Your task to perform on an android device: open app "File Manager" Image 0: 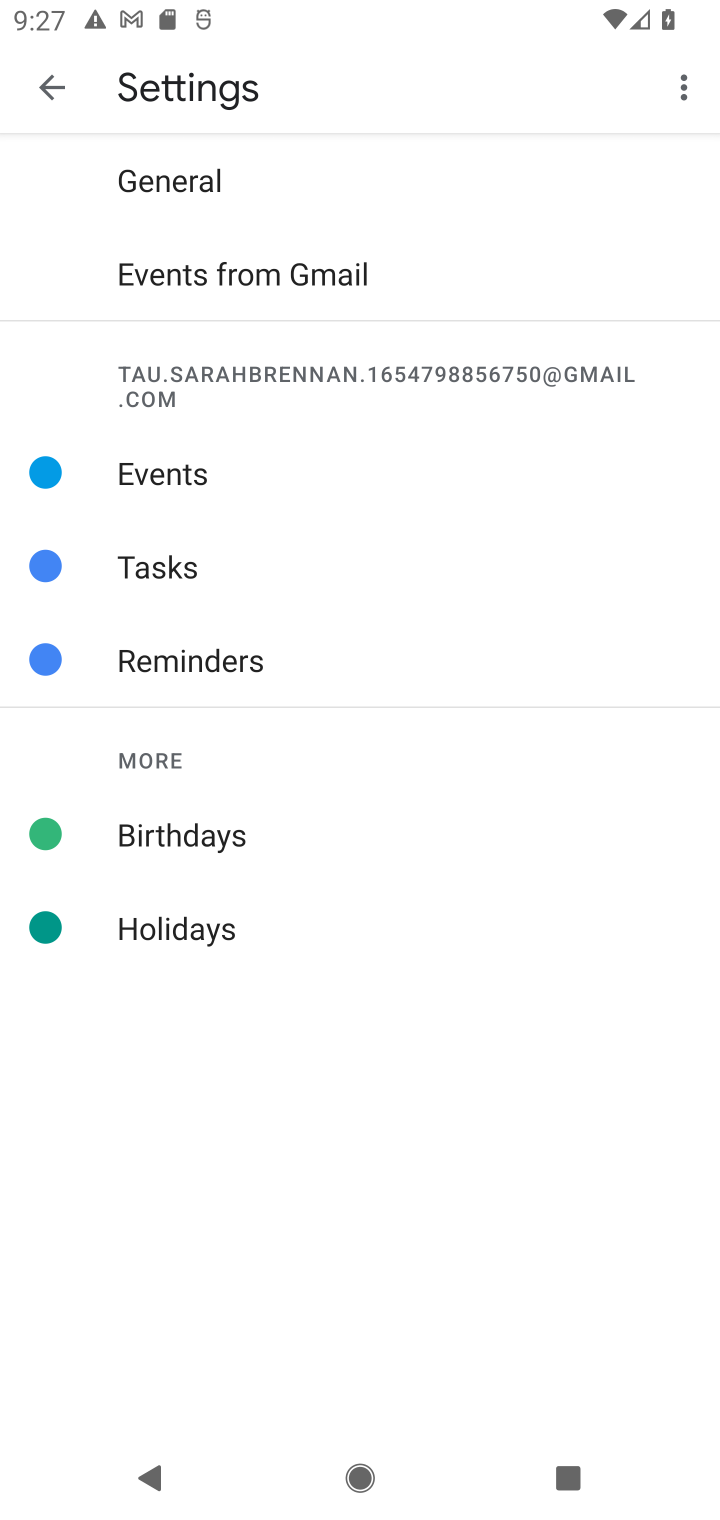
Step 0: press home button
Your task to perform on an android device: open app "File Manager" Image 1: 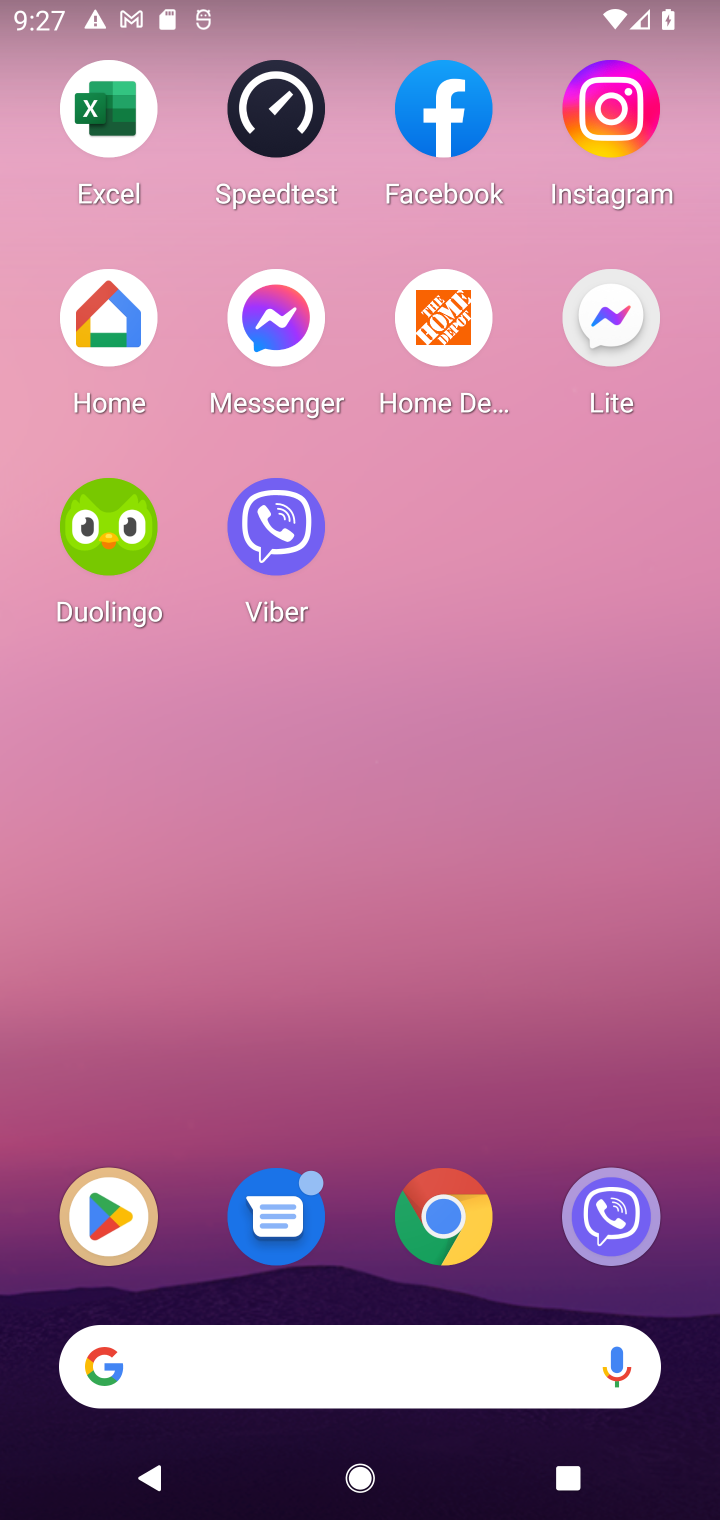
Step 1: click (103, 1213)
Your task to perform on an android device: open app "File Manager" Image 2: 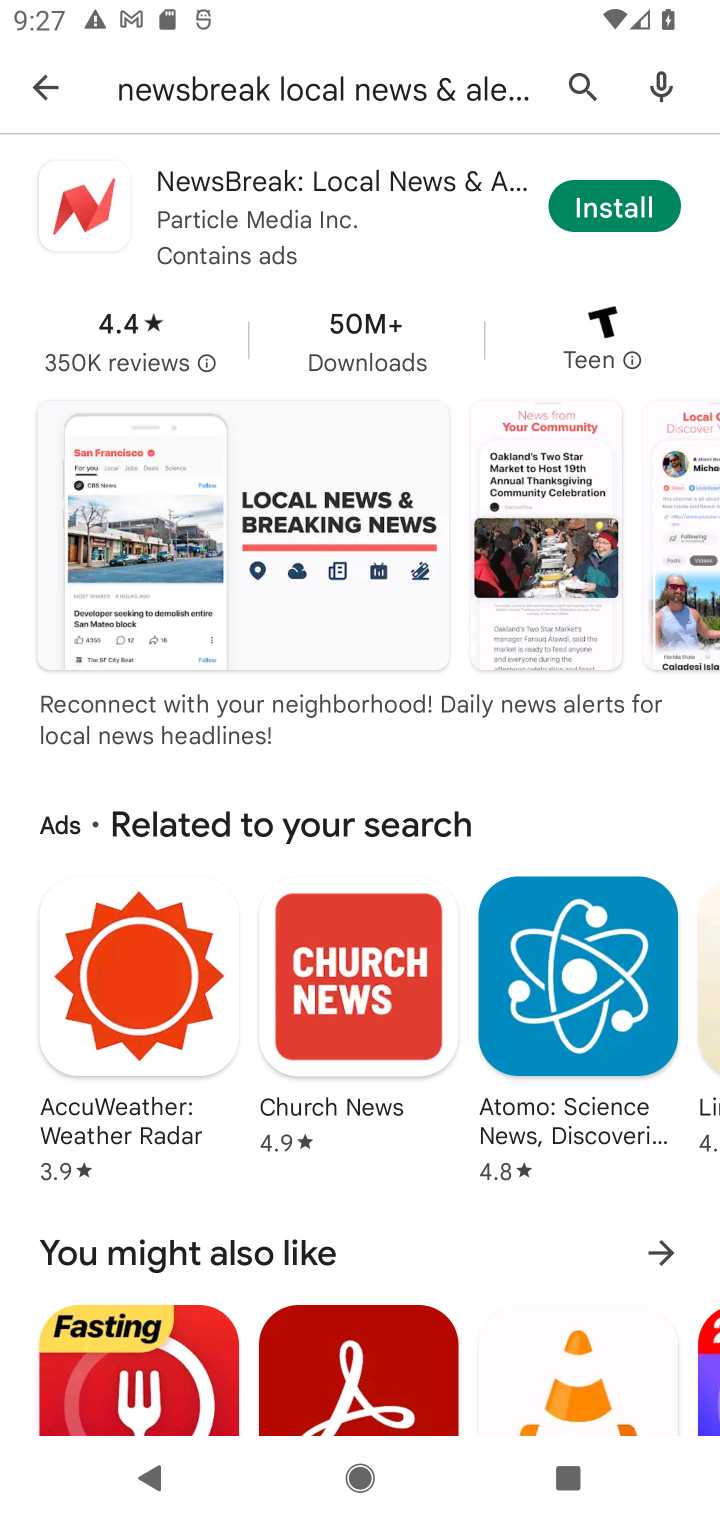
Step 2: click (575, 72)
Your task to perform on an android device: open app "File Manager" Image 3: 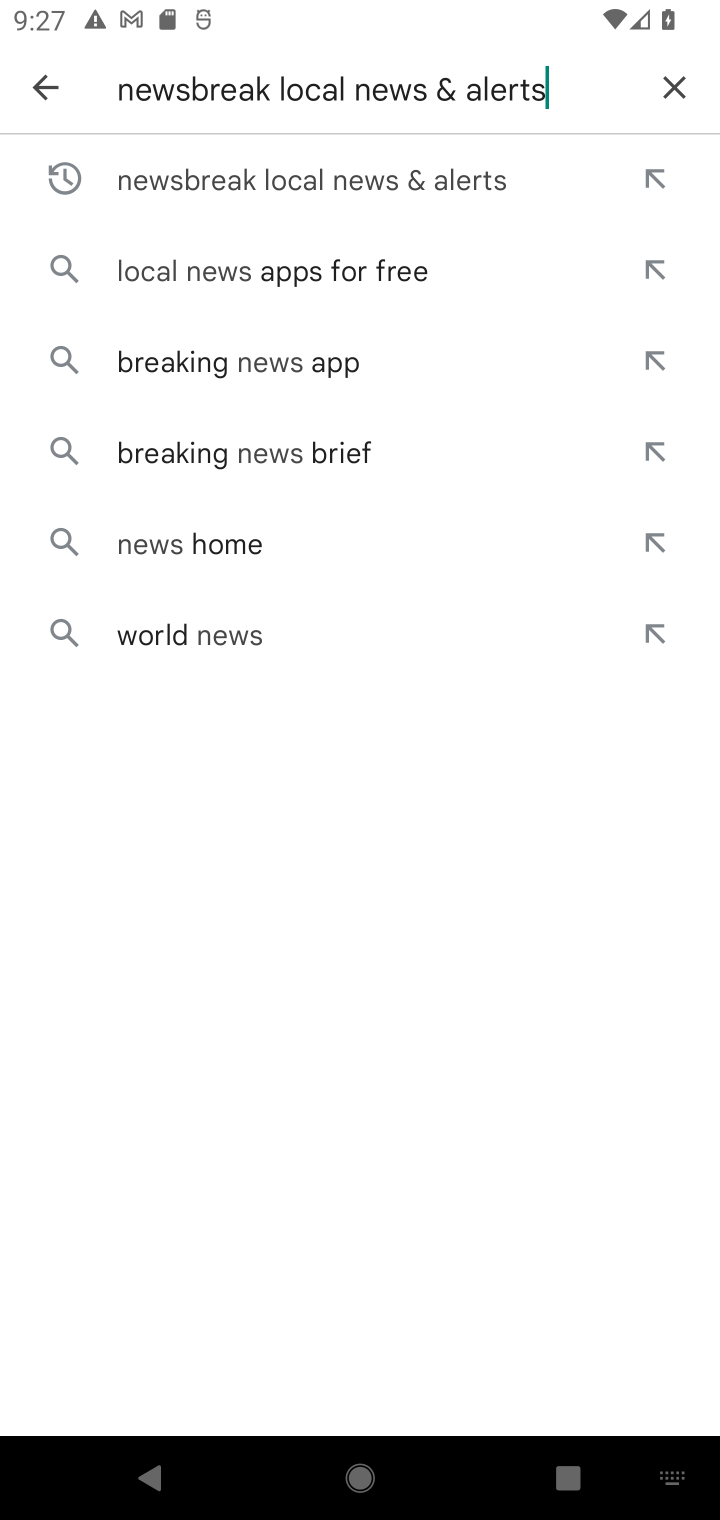
Step 3: click (657, 89)
Your task to perform on an android device: open app "File Manager" Image 4: 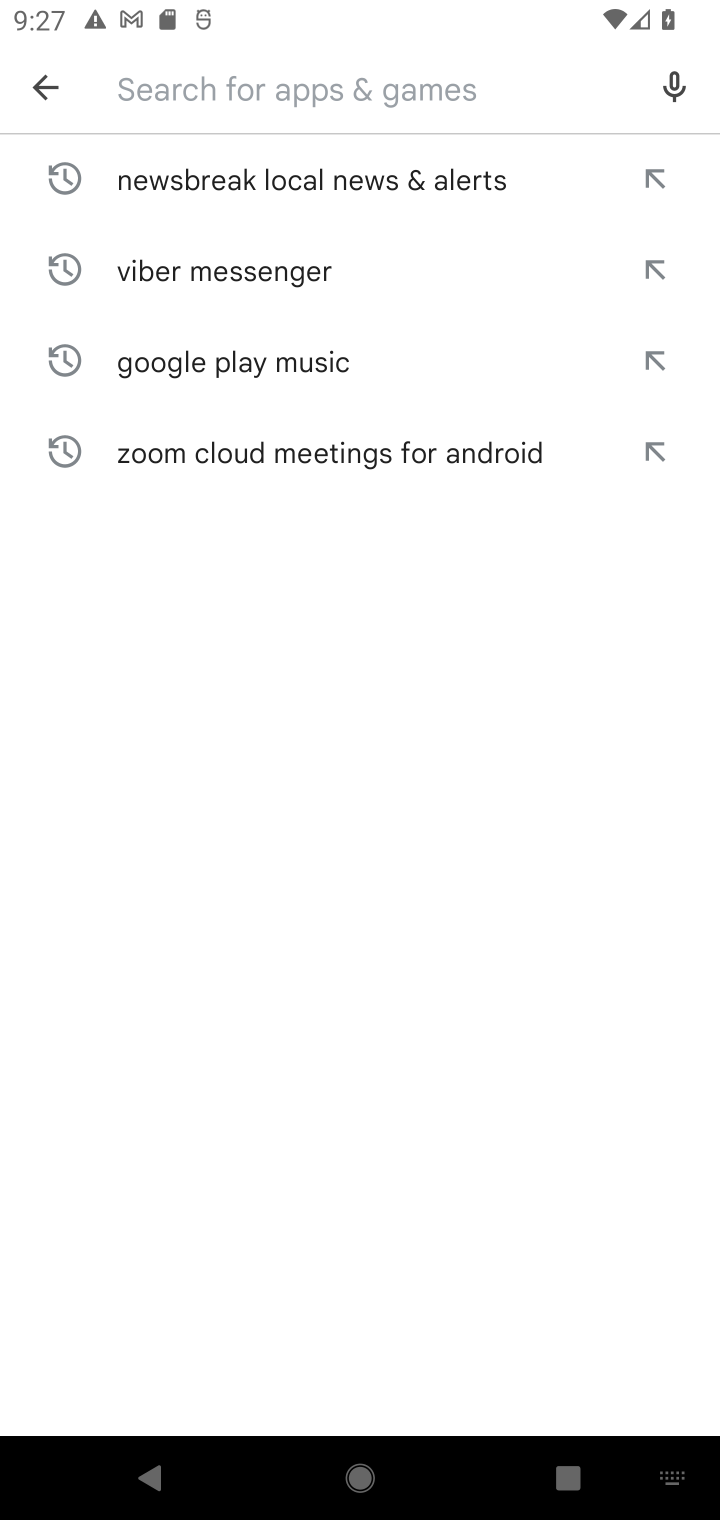
Step 4: type "File Manager"
Your task to perform on an android device: open app "File Manager" Image 5: 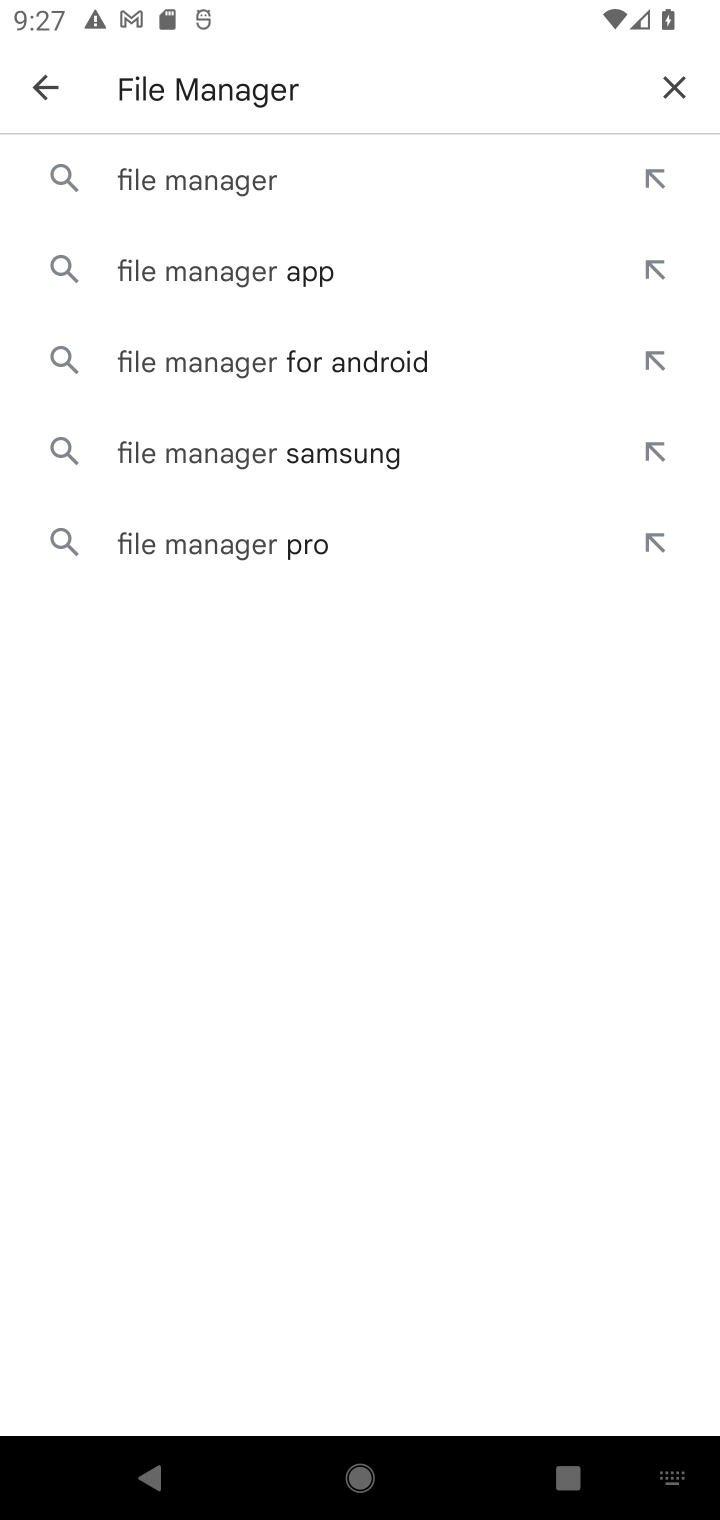
Step 5: click (176, 213)
Your task to perform on an android device: open app "File Manager" Image 6: 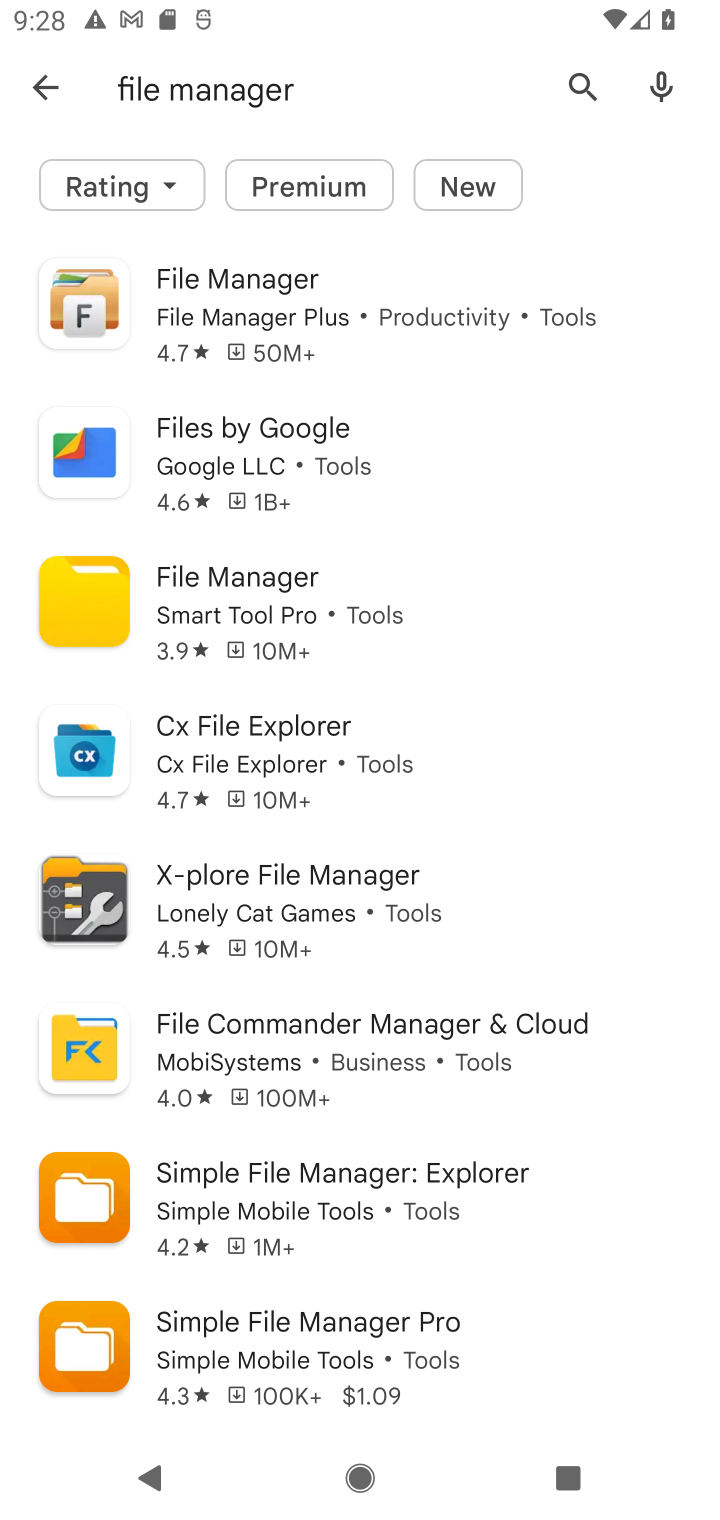
Step 6: click (176, 330)
Your task to perform on an android device: open app "File Manager" Image 7: 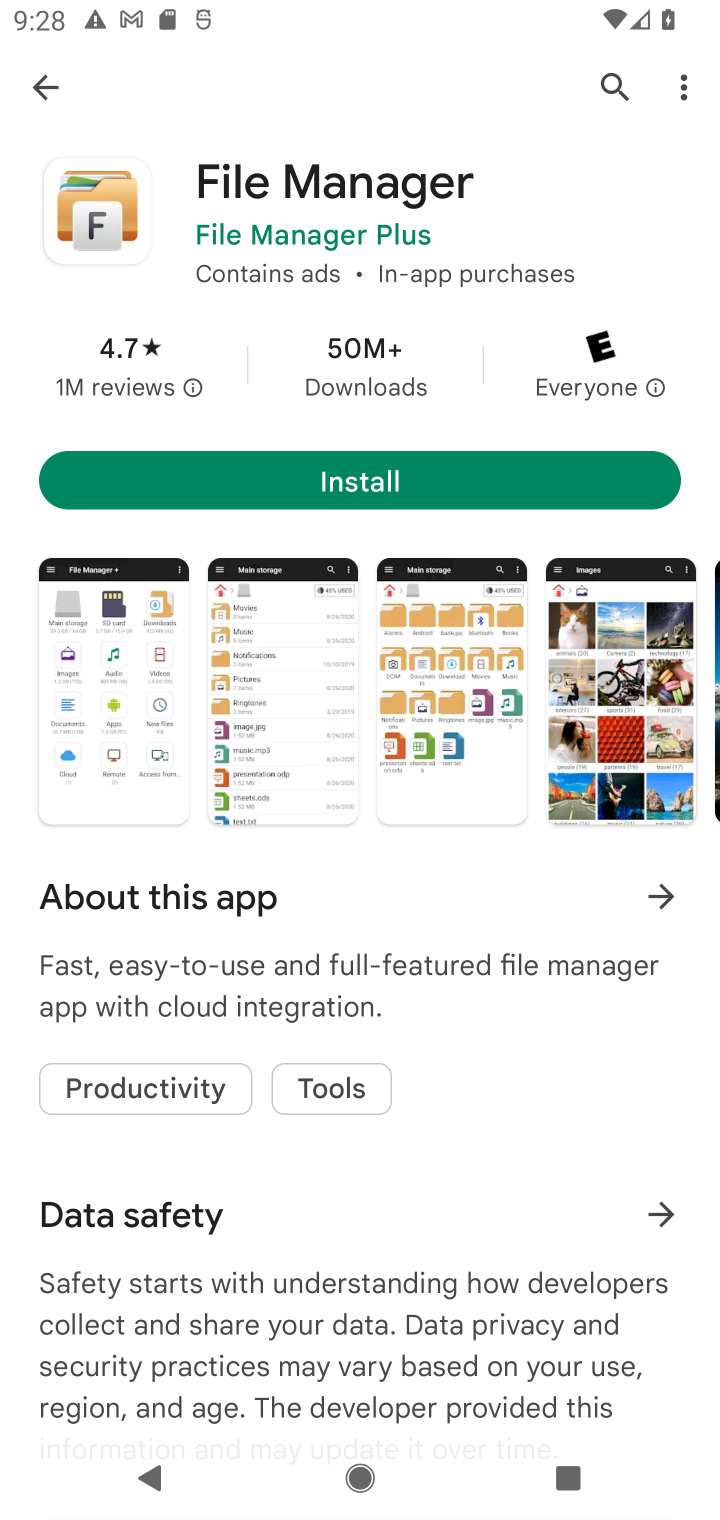
Step 7: task complete